Your task to perform on an android device: Open settings Image 0: 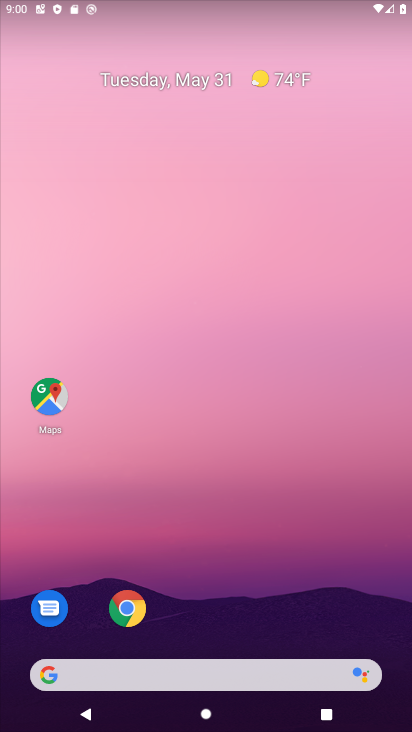
Step 0: drag from (270, 645) to (207, 13)
Your task to perform on an android device: Open settings Image 1: 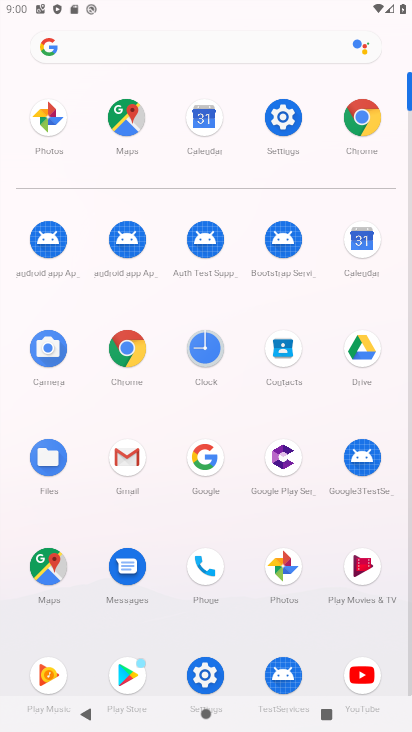
Step 1: click (284, 131)
Your task to perform on an android device: Open settings Image 2: 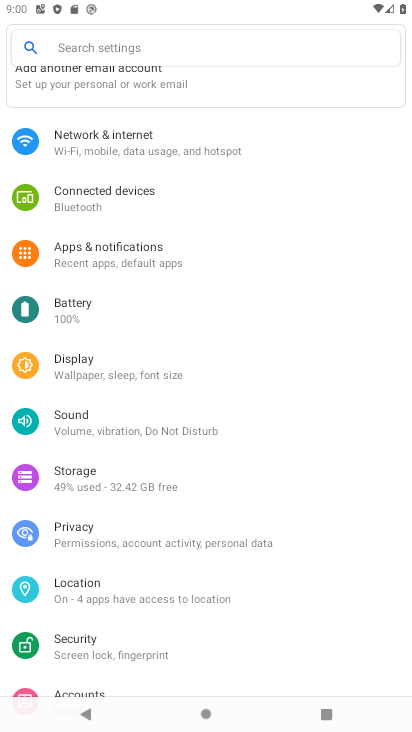
Step 2: task complete